Your task to perform on an android device: search for starred emails in the gmail app Image 0: 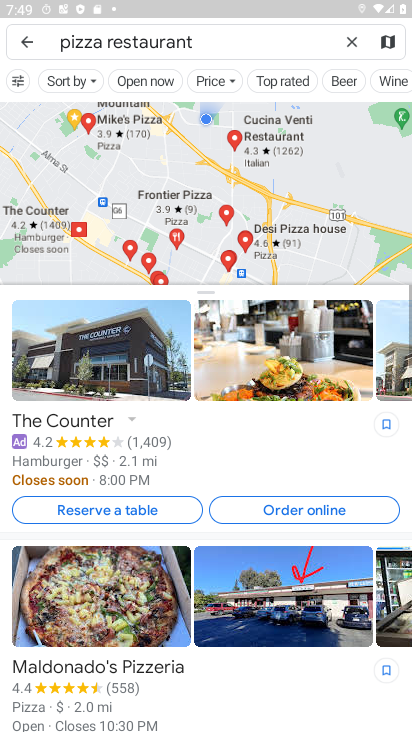
Step 0: press home button
Your task to perform on an android device: search for starred emails in the gmail app Image 1: 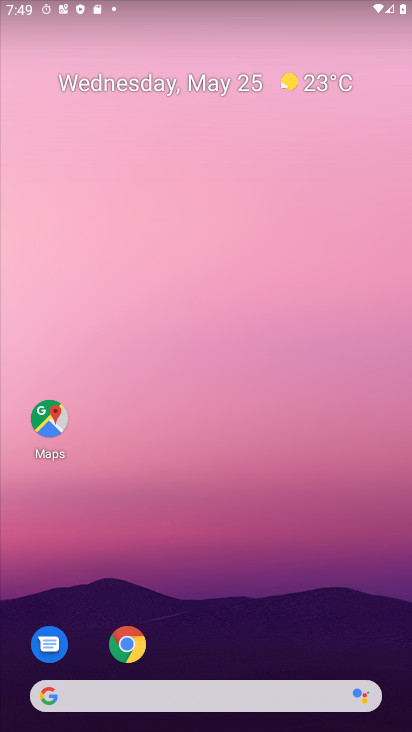
Step 1: drag from (271, 684) to (350, 100)
Your task to perform on an android device: search for starred emails in the gmail app Image 2: 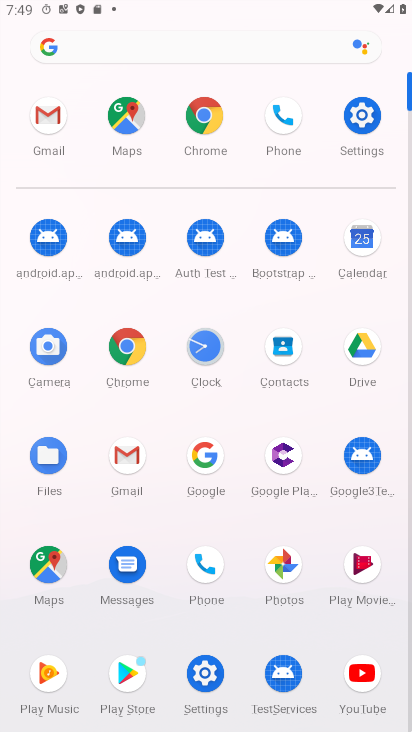
Step 2: click (111, 469)
Your task to perform on an android device: search for starred emails in the gmail app Image 3: 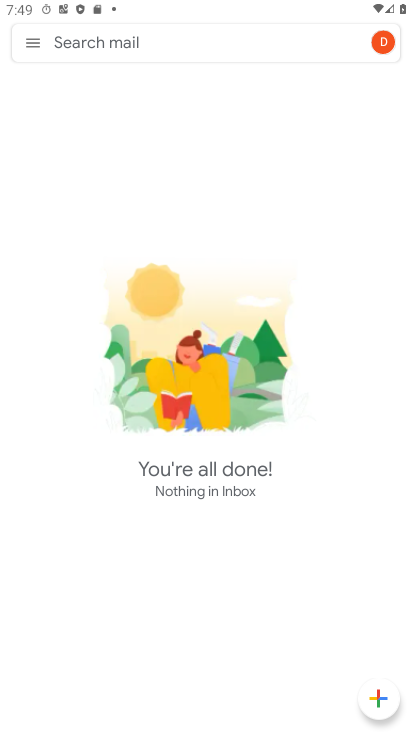
Step 3: click (24, 38)
Your task to perform on an android device: search for starred emails in the gmail app Image 4: 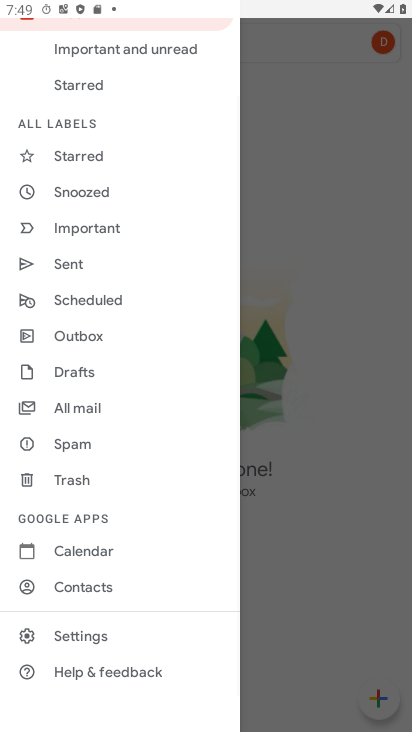
Step 4: click (79, 88)
Your task to perform on an android device: search for starred emails in the gmail app Image 5: 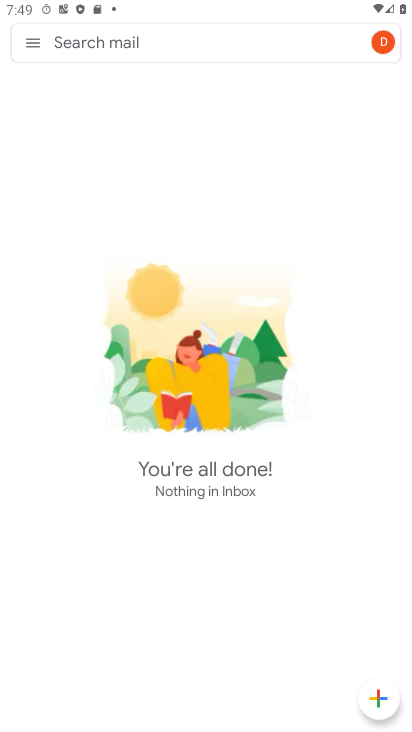
Step 5: task complete